Your task to perform on an android device: toggle pop-ups in chrome Image 0: 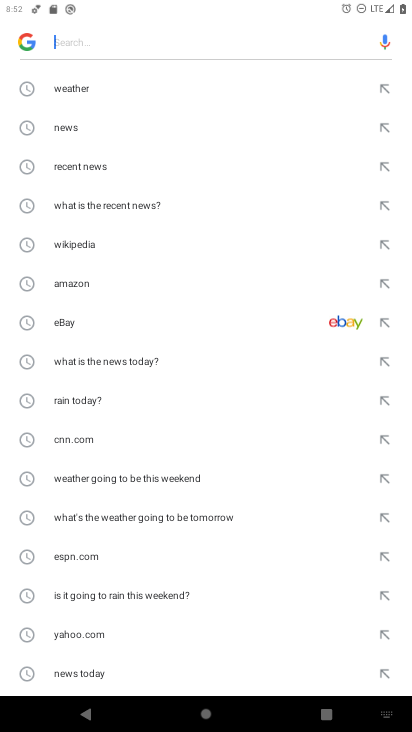
Step 0: press home button
Your task to perform on an android device: toggle pop-ups in chrome Image 1: 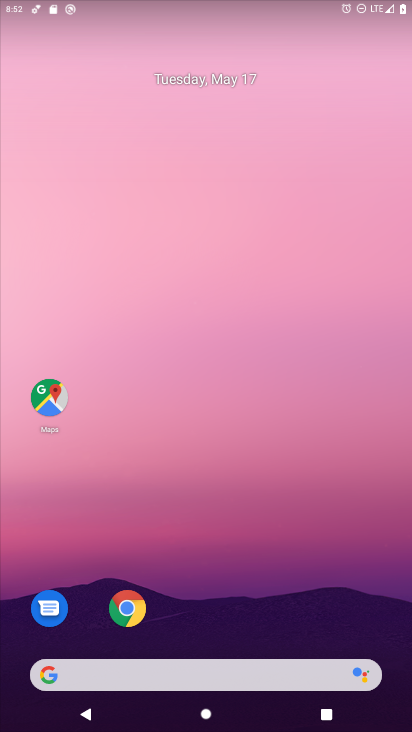
Step 1: click (139, 610)
Your task to perform on an android device: toggle pop-ups in chrome Image 2: 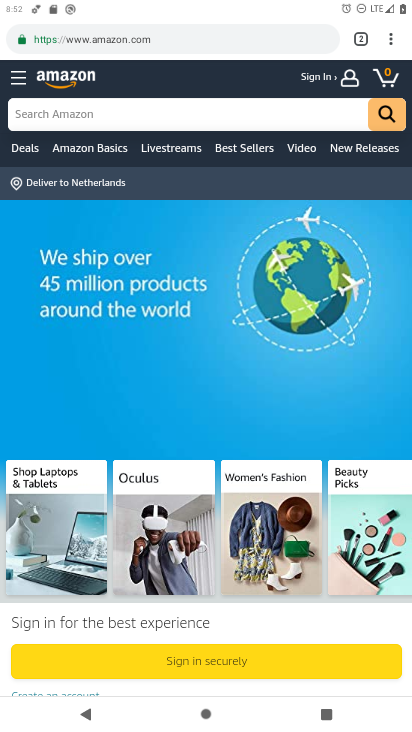
Step 2: click (386, 41)
Your task to perform on an android device: toggle pop-ups in chrome Image 3: 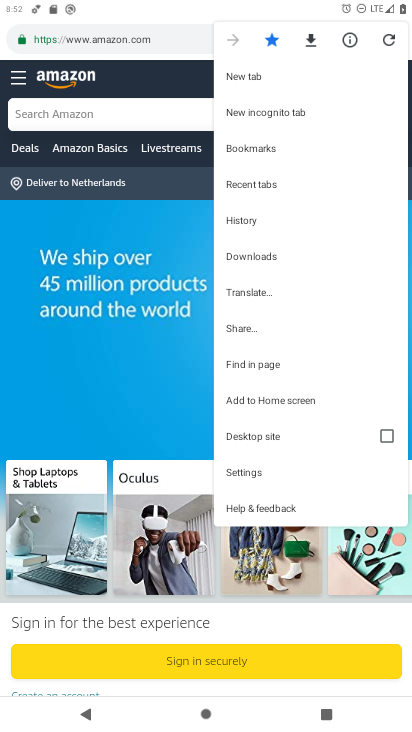
Step 3: click (247, 476)
Your task to perform on an android device: toggle pop-ups in chrome Image 4: 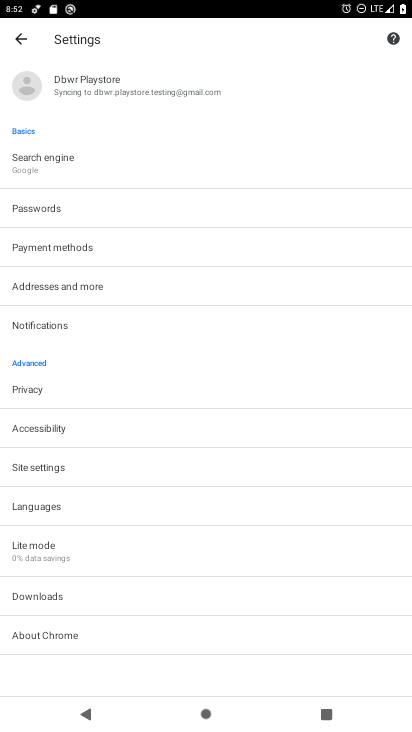
Step 4: click (65, 474)
Your task to perform on an android device: toggle pop-ups in chrome Image 5: 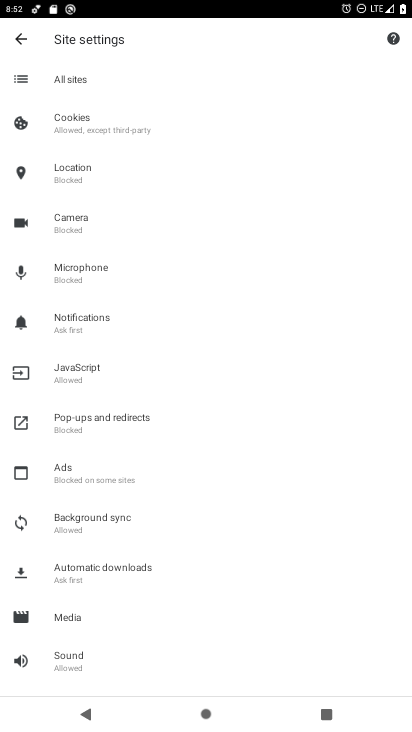
Step 5: click (91, 414)
Your task to perform on an android device: toggle pop-ups in chrome Image 6: 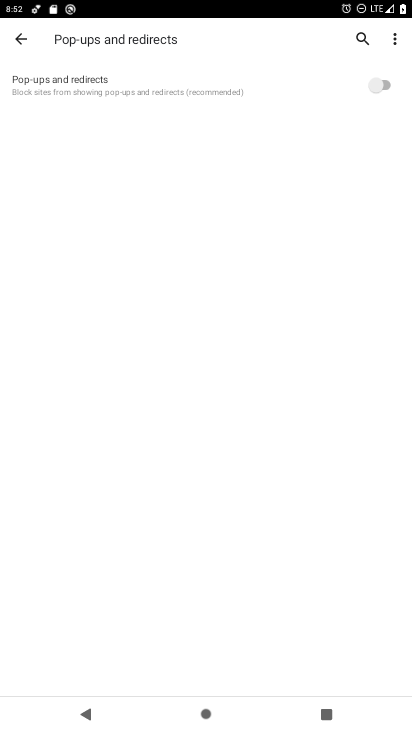
Step 6: click (387, 85)
Your task to perform on an android device: toggle pop-ups in chrome Image 7: 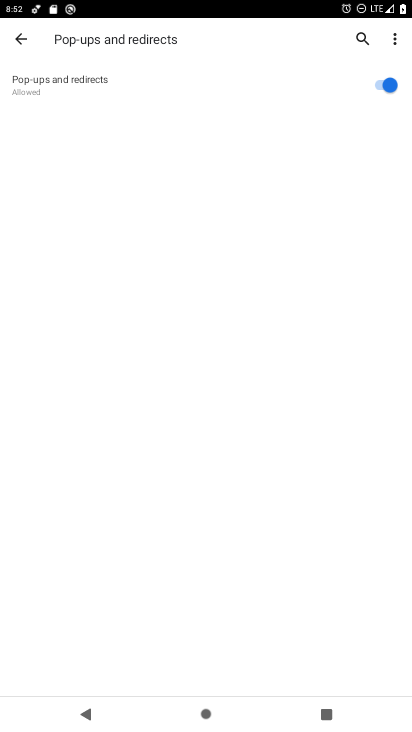
Step 7: task complete